Your task to perform on an android device: turn notification dots off Image 0: 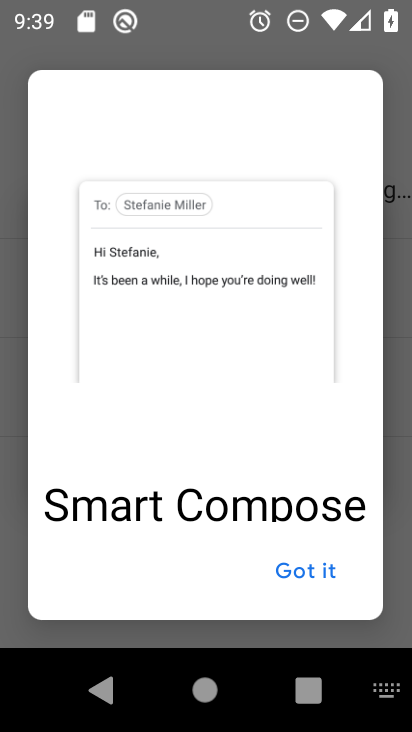
Step 0: press home button
Your task to perform on an android device: turn notification dots off Image 1: 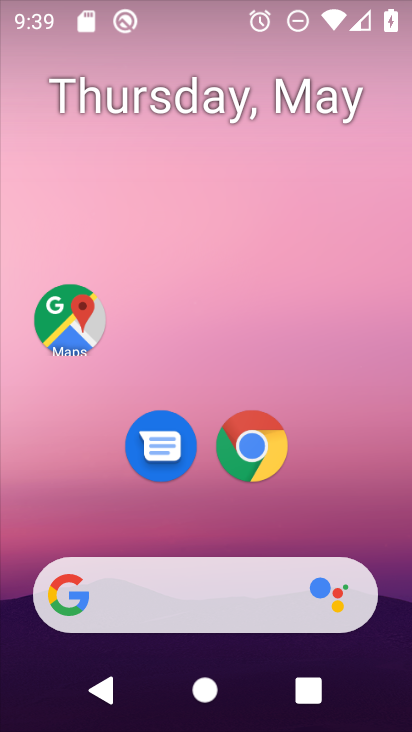
Step 1: drag from (363, 534) to (377, 202)
Your task to perform on an android device: turn notification dots off Image 2: 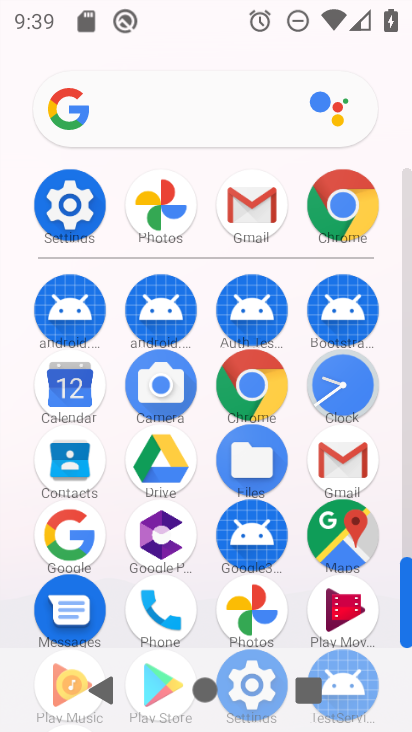
Step 2: click (59, 214)
Your task to perform on an android device: turn notification dots off Image 3: 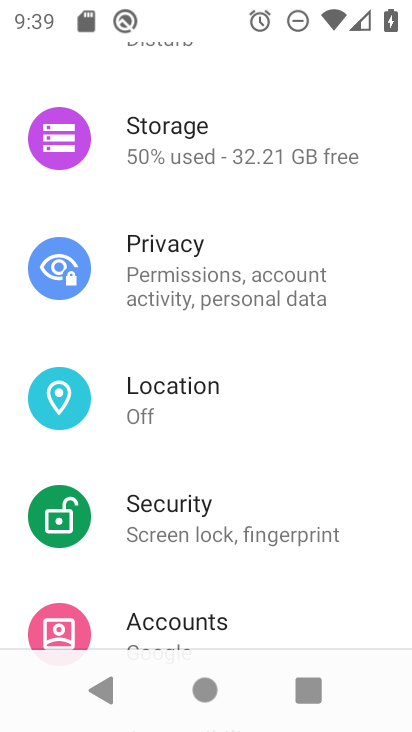
Step 3: drag from (260, 186) to (273, 565)
Your task to perform on an android device: turn notification dots off Image 4: 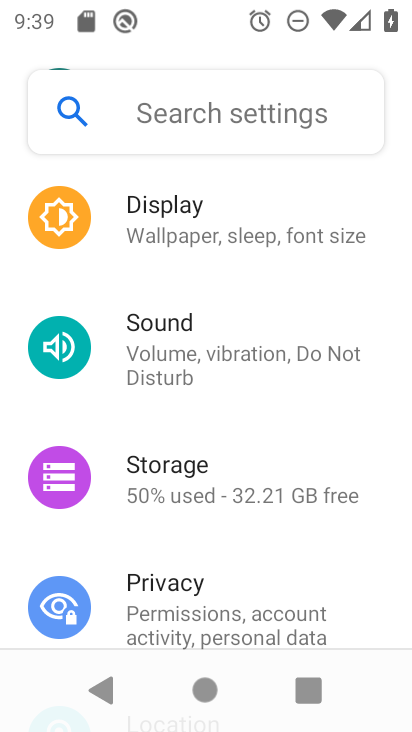
Step 4: drag from (290, 221) to (299, 456)
Your task to perform on an android device: turn notification dots off Image 5: 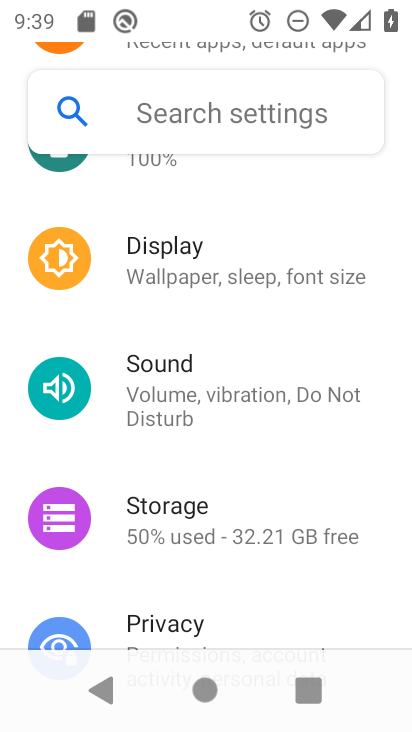
Step 5: drag from (288, 236) to (278, 553)
Your task to perform on an android device: turn notification dots off Image 6: 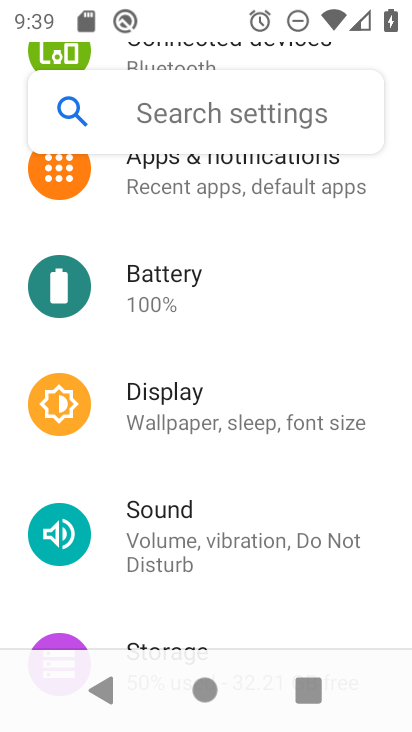
Step 6: click (258, 185)
Your task to perform on an android device: turn notification dots off Image 7: 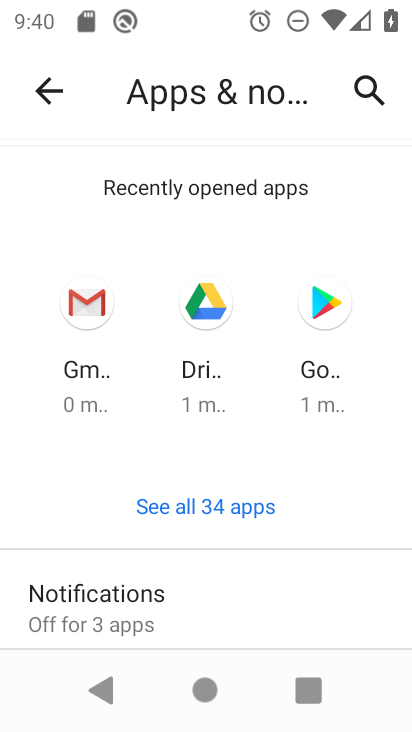
Step 7: drag from (207, 587) to (232, 269)
Your task to perform on an android device: turn notification dots off Image 8: 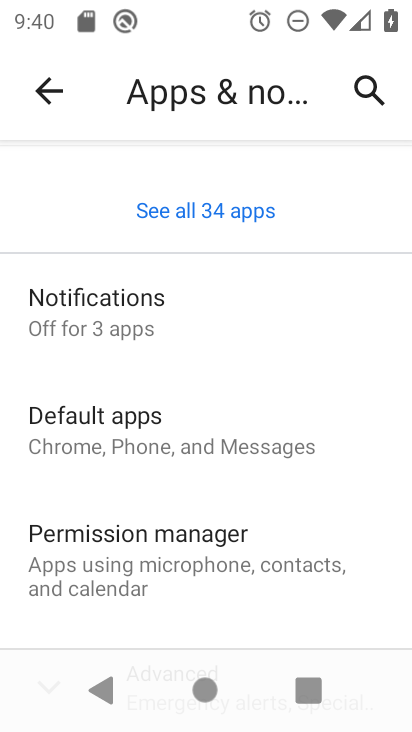
Step 8: click (189, 302)
Your task to perform on an android device: turn notification dots off Image 9: 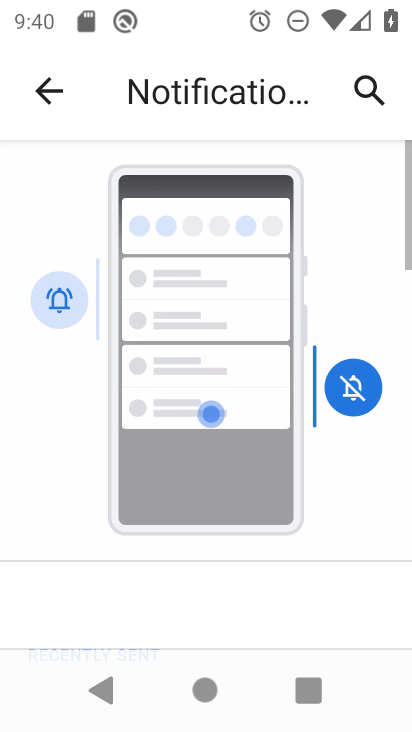
Step 9: drag from (233, 578) to (322, 182)
Your task to perform on an android device: turn notification dots off Image 10: 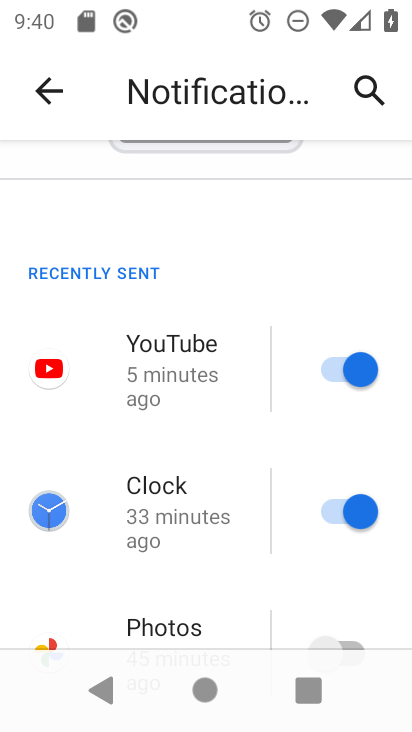
Step 10: drag from (191, 577) to (264, 108)
Your task to perform on an android device: turn notification dots off Image 11: 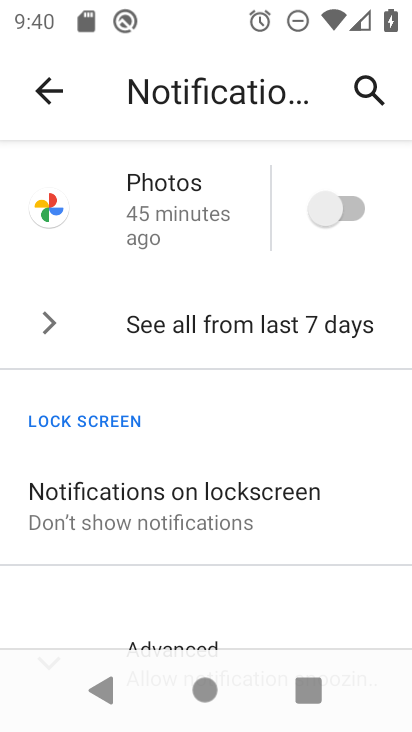
Step 11: drag from (194, 554) to (252, 183)
Your task to perform on an android device: turn notification dots off Image 12: 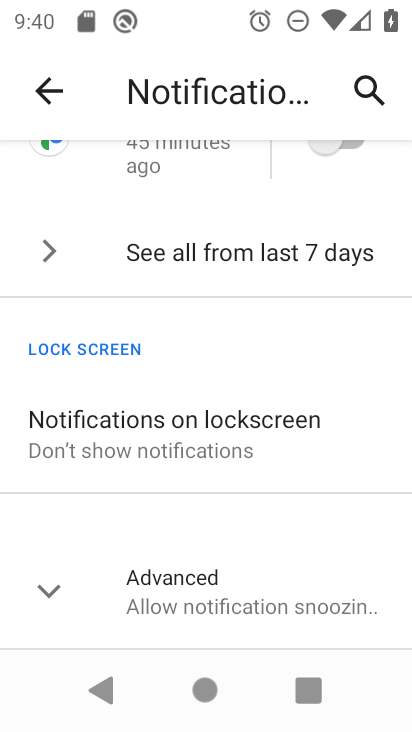
Step 12: click (181, 575)
Your task to perform on an android device: turn notification dots off Image 13: 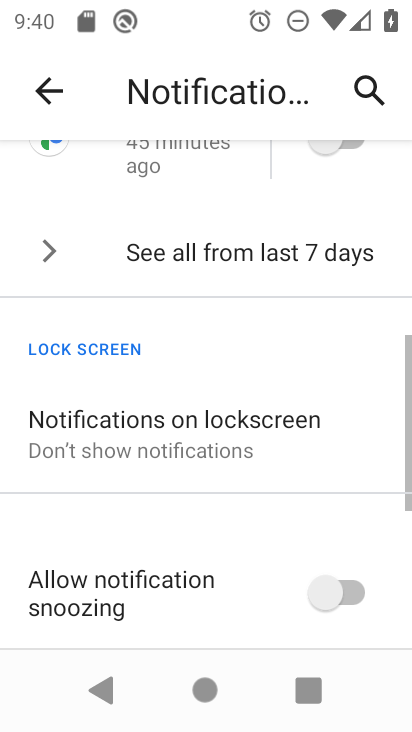
Step 13: drag from (225, 626) to (243, 250)
Your task to perform on an android device: turn notification dots off Image 14: 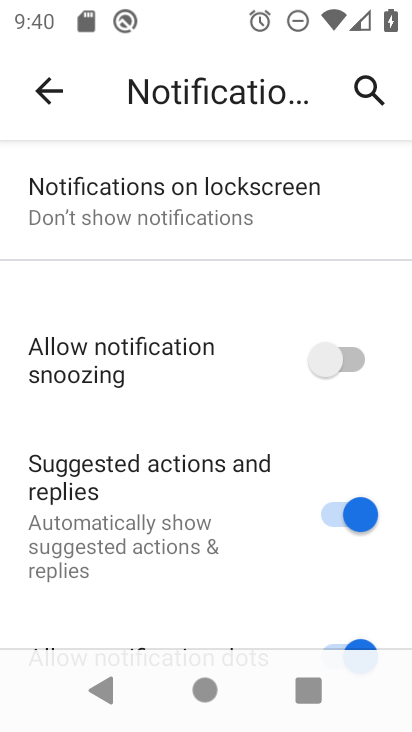
Step 14: drag from (214, 586) to (222, 295)
Your task to perform on an android device: turn notification dots off Image 15: 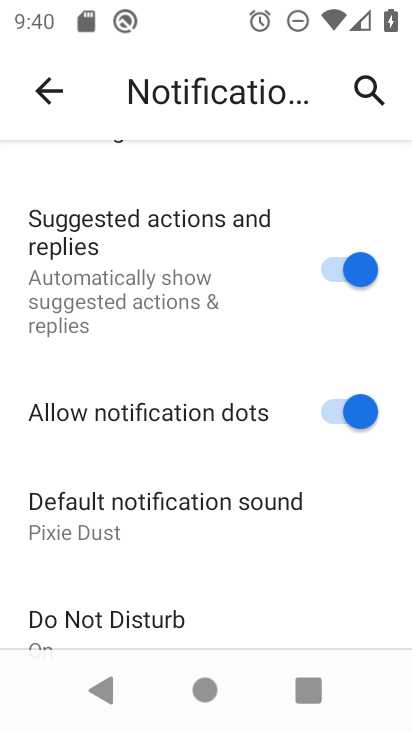
Step 15: click (333, 421)
Your task to perform on an android device: turn notification dots off Image 16: 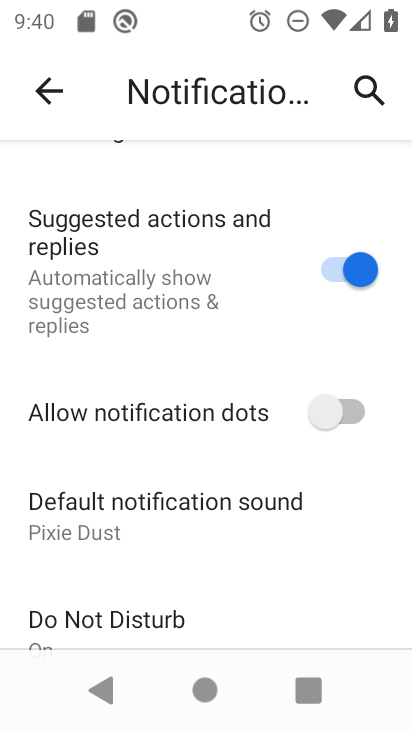
Step 16: task complete